Your task to perform on an android device: toggle location history Image 0: 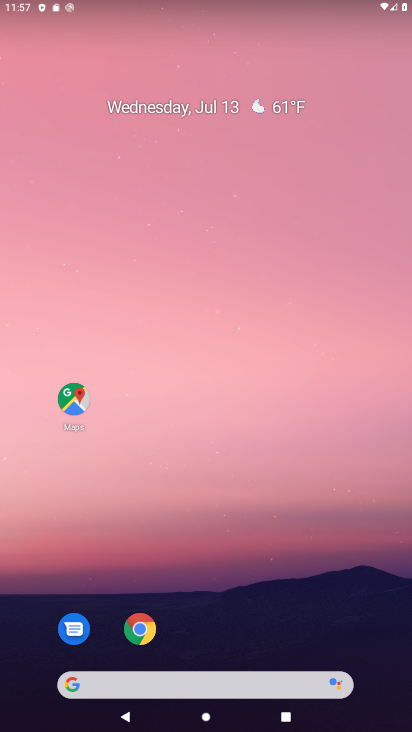
Step 0: press home button
Your task to perform on an android device: toggle location history Image 1: 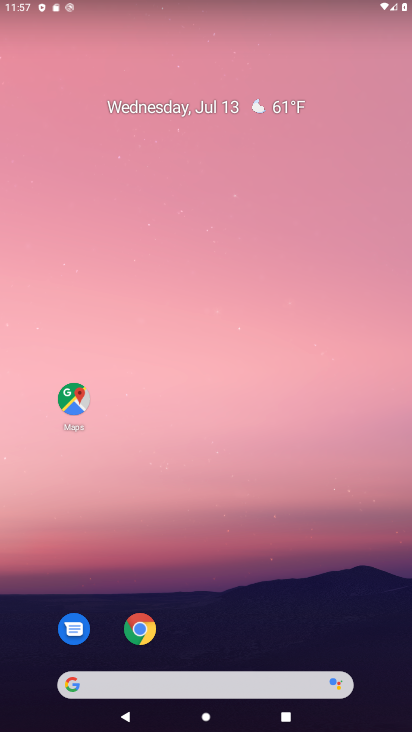
Step 1: click (67, 401)
Your task to perform on an android device: toggle location history Image 2: 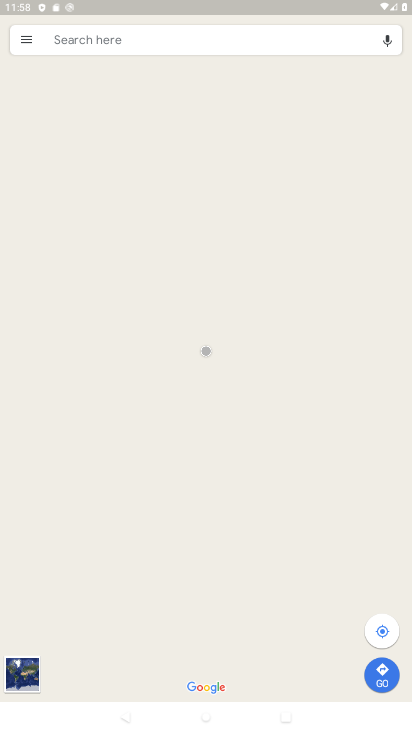
Step 2: click (24, 36)
Your task to perform on an android device: toggle location history Image 3: 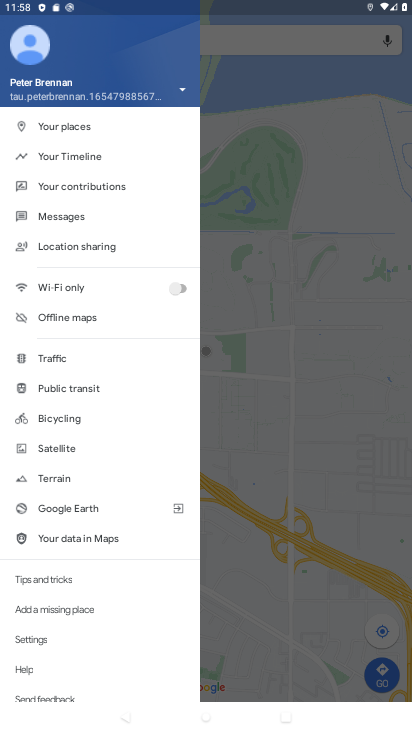
Step 3: click (78, 155)
Your task to perform on an android device: toggle location history Image 4: 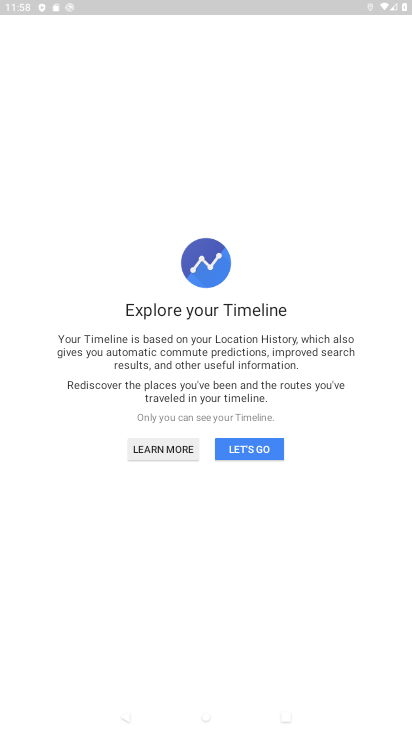
Step 4: click (249, 448)
Your task to perform on an android device: toggle location history Image 5: 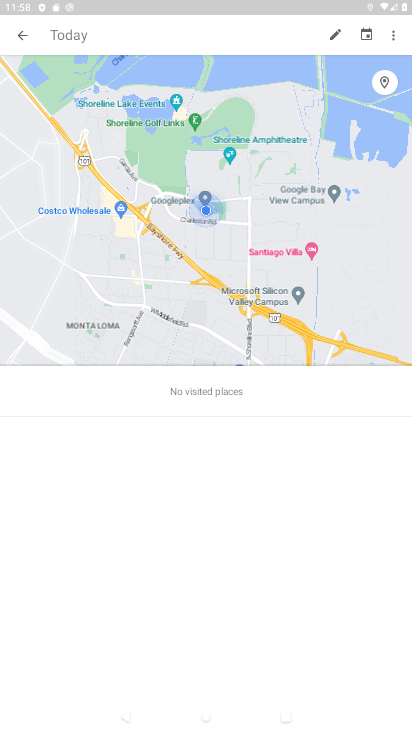
Step 5: click (395, 32)
Your task to perform on an android device: toggle location history Image 6: 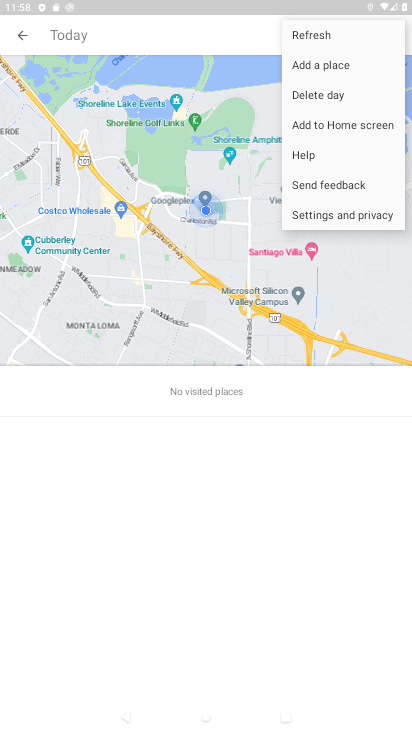
Step 6: click (324, 216)
Your task to perform on an android device: toggle location history Image 7: 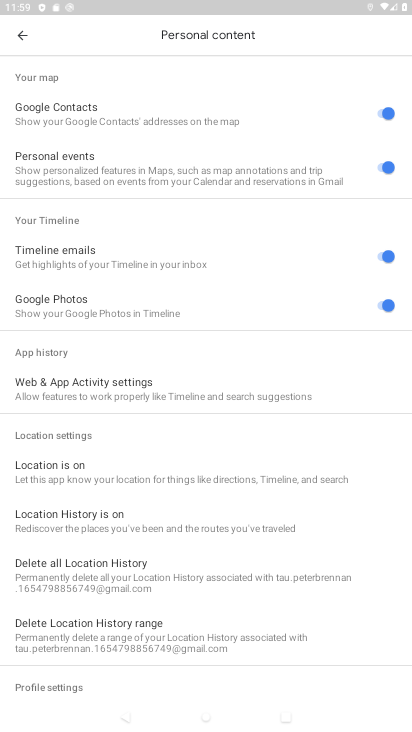
Step 7: click (82, 512)
Your task to perform on an android device: toggle location history Image 8: 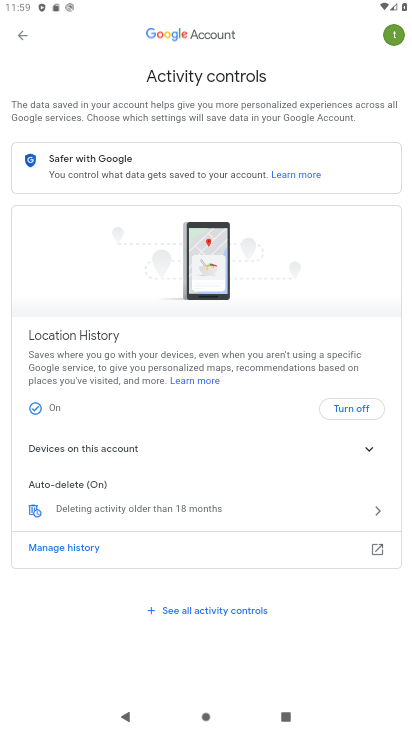
Step 8: click (344, 412)
Your task to perform on an android device: toggle location history Image 9: 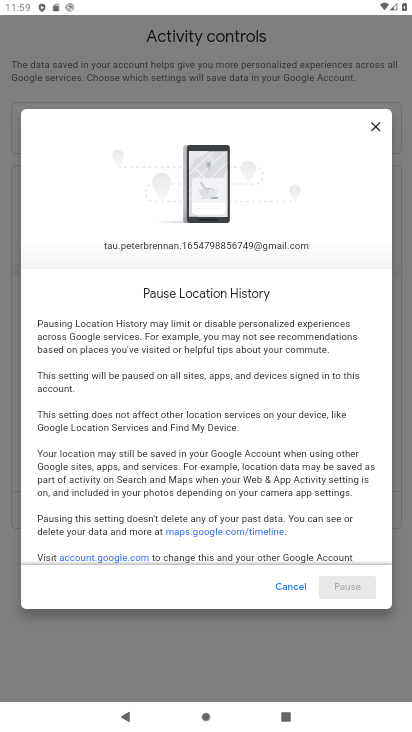
Step 9: drag from (334, 490) to (296, 295)
Your task to perform on an android device: toggle location history Image 10: 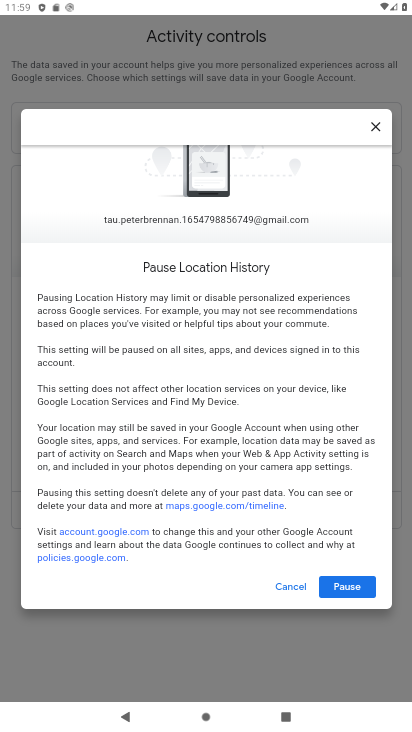
Step 10: click (348, 585)
Your task to perform on an android device: toggle location history Image 11: 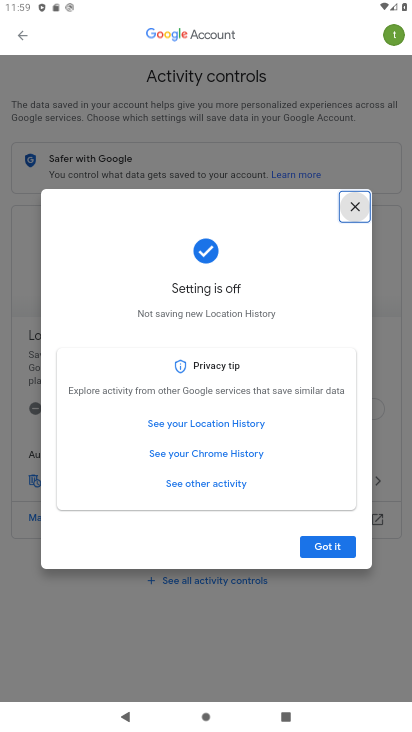
Step 11: click (336, 540)
Your task to perform on an android device: toggle location history Image 12: 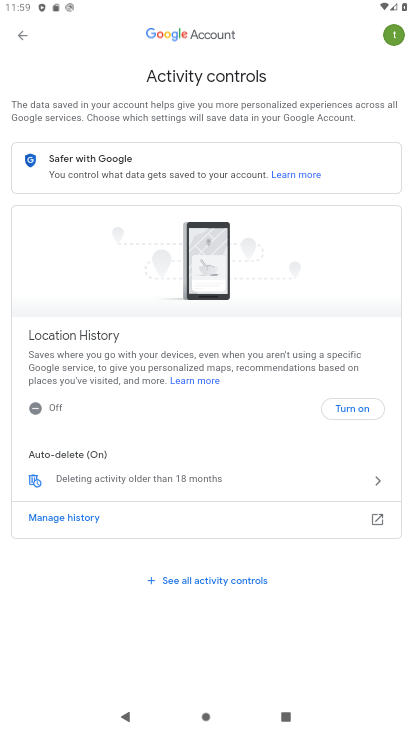
Step 12: task complete